Your task to perform on an android device: delete location history Image 0: 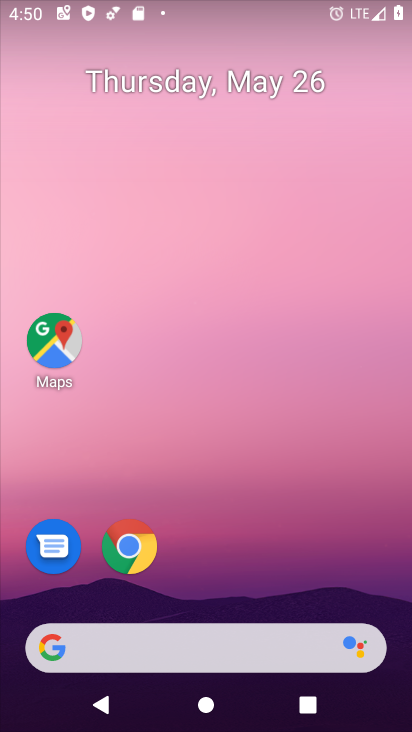
Step 0: click (52, 321)
Your task to perform on an android device: delete location history Image 1: 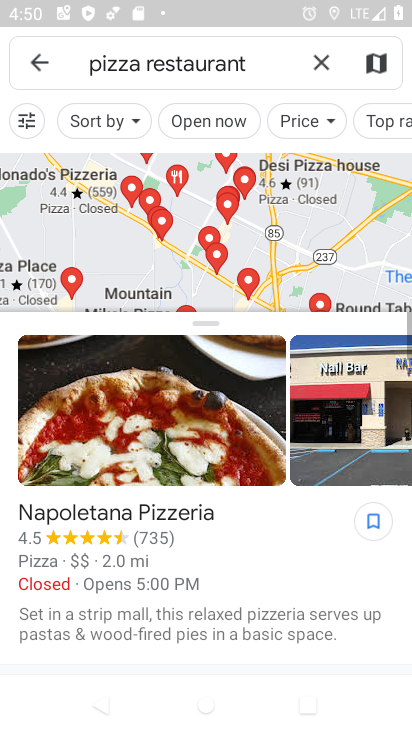
Step 1: click (35, 53)
Your task to perform on an android device: delete location history Image 2: 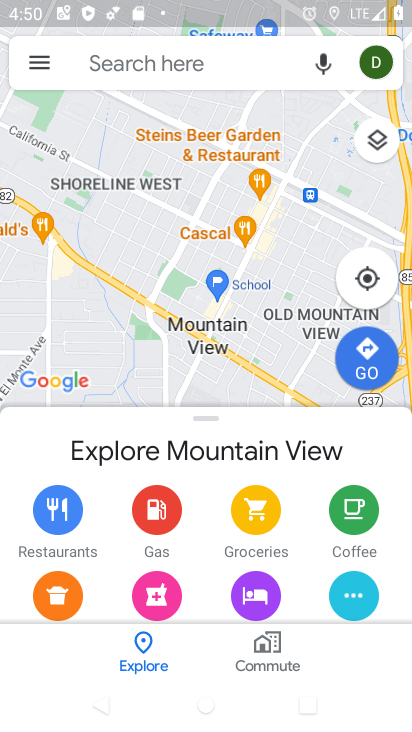
Step 2: click (42, 58)
Your task to perform on an android device: delete location history Image 3: 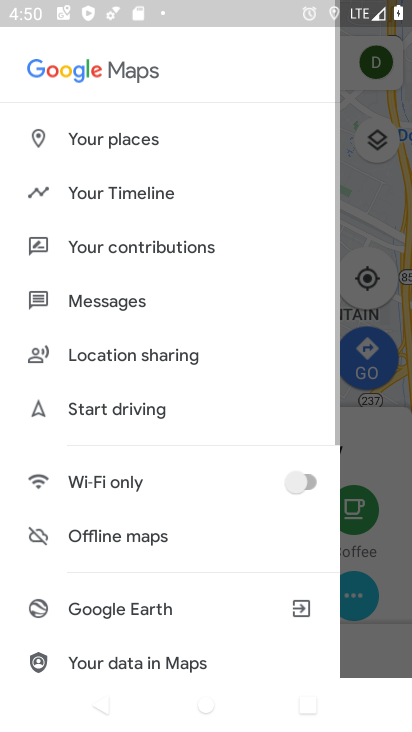
Step 3: click (153, 193)
Your task to perform on an android device: delete location history Image 4: 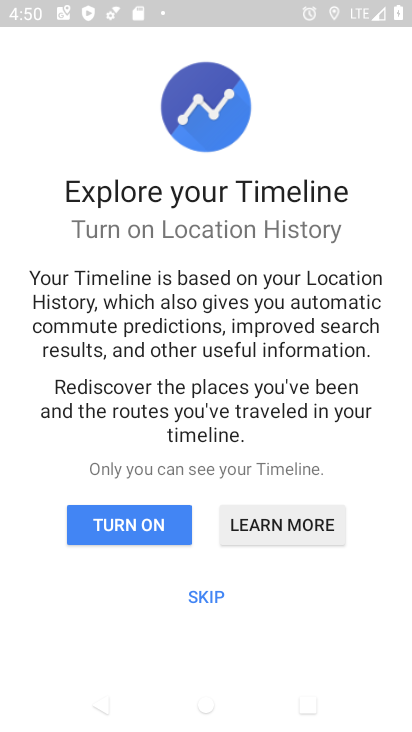
Step 4: click (211, 599)
Your task to perform on an android device: delete location history Image 5: 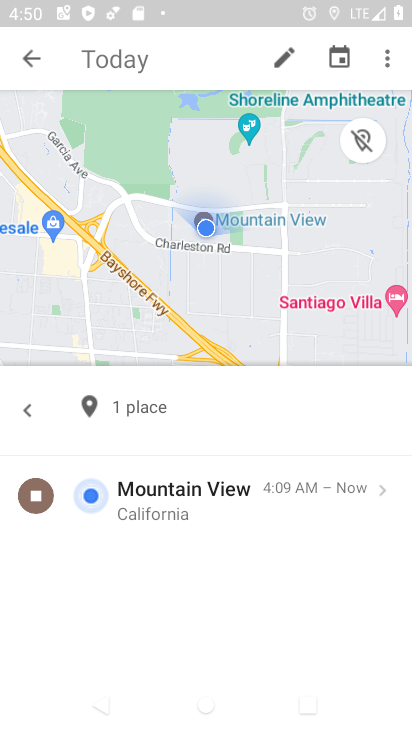
Step 5: click (380, 58)
Your task to perform on an android device: delete location history Image 6: 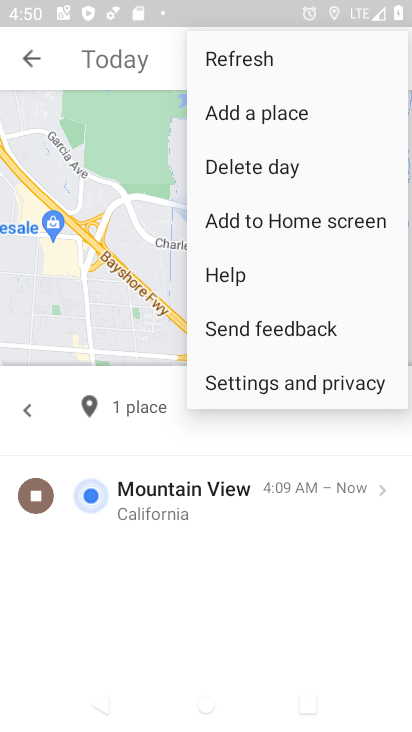
Step 6: click (256, 384)
Your task to perform on an android device: delete location history Image 7: 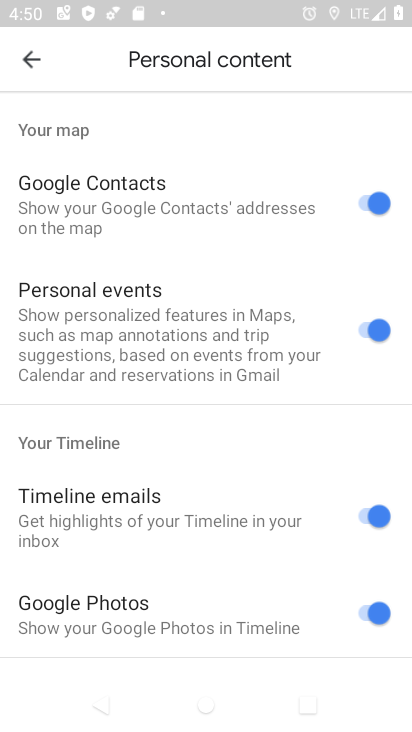
Step 7: drag from (169, 572) to (256, 53)
Your task to perform on an android device: delete location history Image 8: 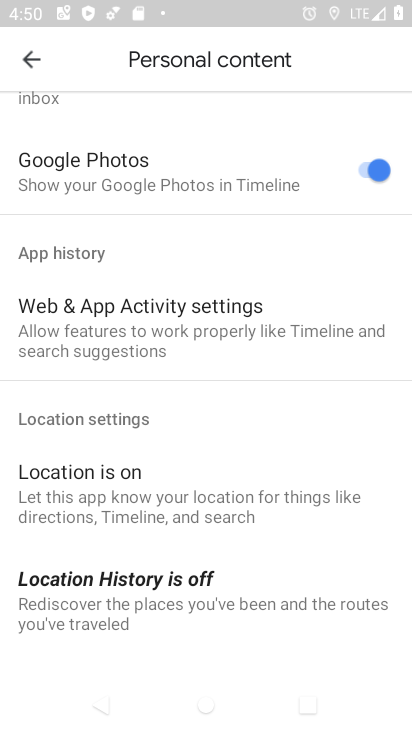
Step 8: drag from (175, 581) to (234, 166)
Your task to perform on an android device: delete location history Image 9: 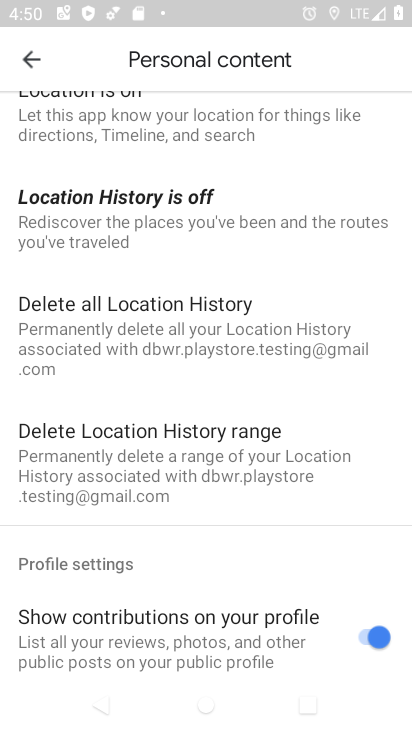
Step 9: click (130, 310)
Your task to perform on an android device: delete location history Image 10: 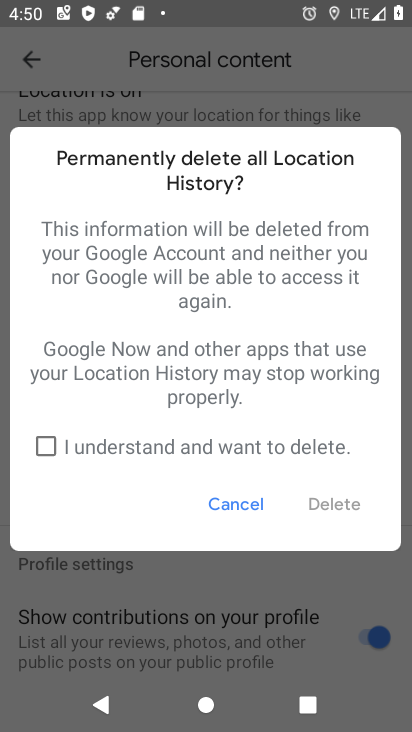
Step 10: click (57, 455)
Your task to perform on an android device: delete location history Image 11: 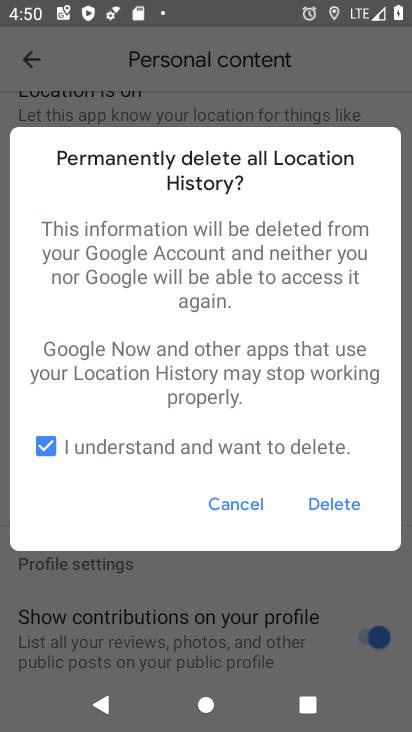
Step 11: click (337, 493)
Your task to perform on an android device: delete location history Image 12: 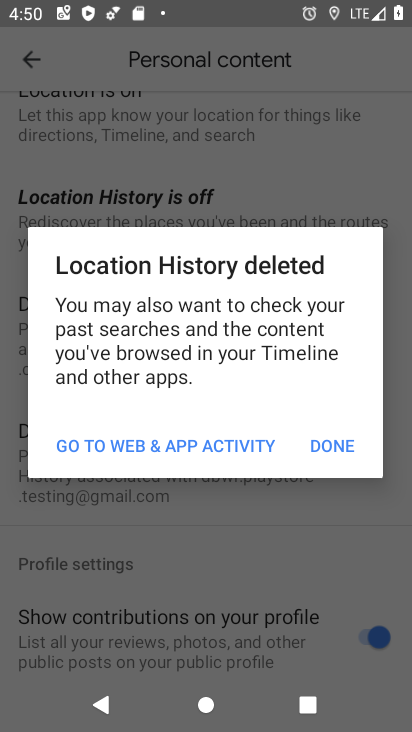
Step 12: click (321, 447)
Your task to perform on an android device: delete location history Image 13: 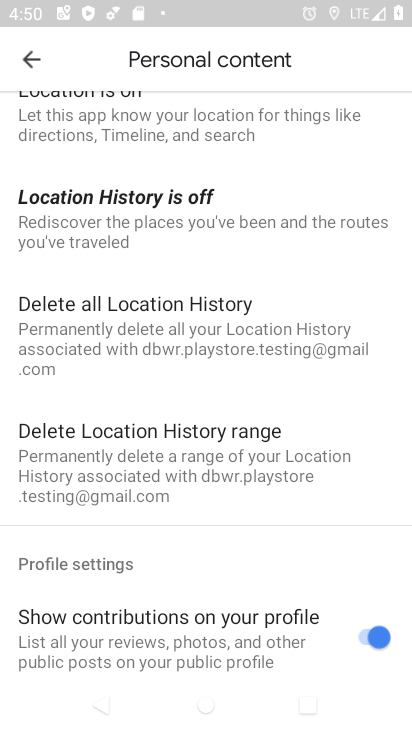
Step 13: task complete